Your task to perform on an android device: turn off notifications in google photos Image 0: 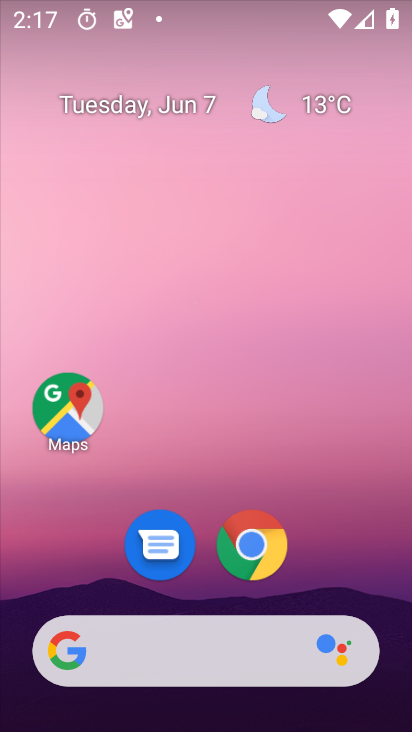
Step 0: drag from (357, 581) to (242, 19)
Your task to perform on an android device: turn off notifications in google photos Image 1: 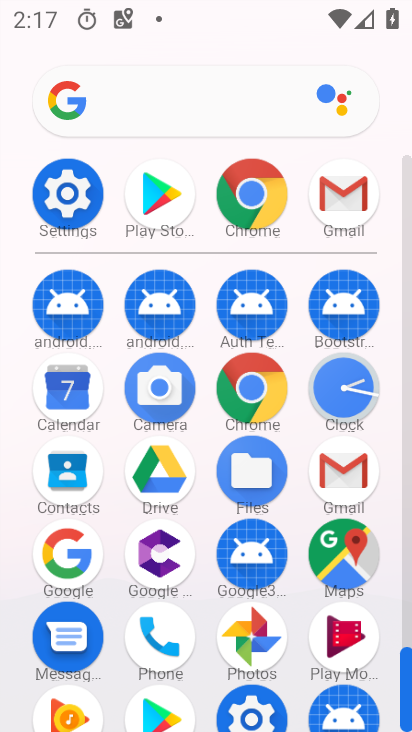
Step 1: click (263, 644)
Your task to perform on an android device: turn off notifications in google photos Image 2: 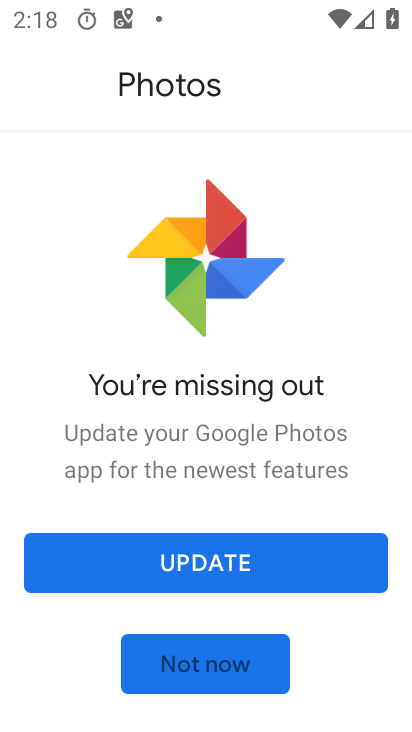
Step 2: click (276, 577)
Your task to perform on an android device: turn off notifications in google photos Image 3: 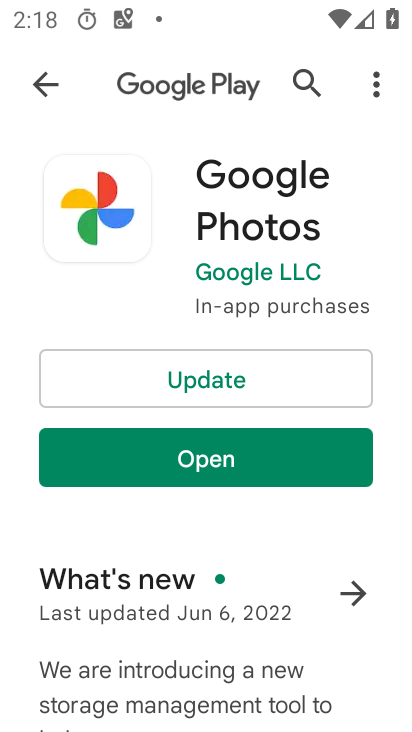
Step 3: click (212, 382)
Your task to perform on an android device: turn off notifications in google photos Image 4: 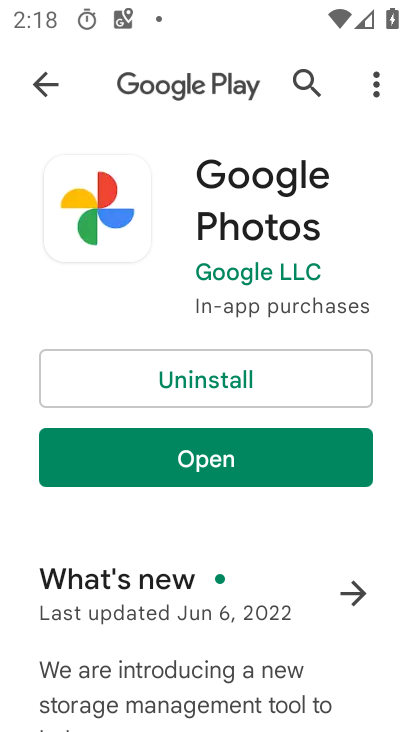
Step 4: click (279, 465)
Your task to perform on an android device: turn off notifications in google photos Image 5: 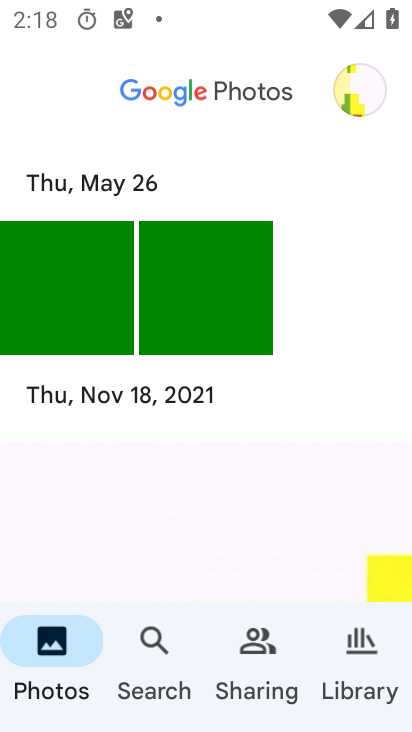
Step 5: click (355, 92)
Your task to perform on an android device: turn off notifications in google photos Image 6: 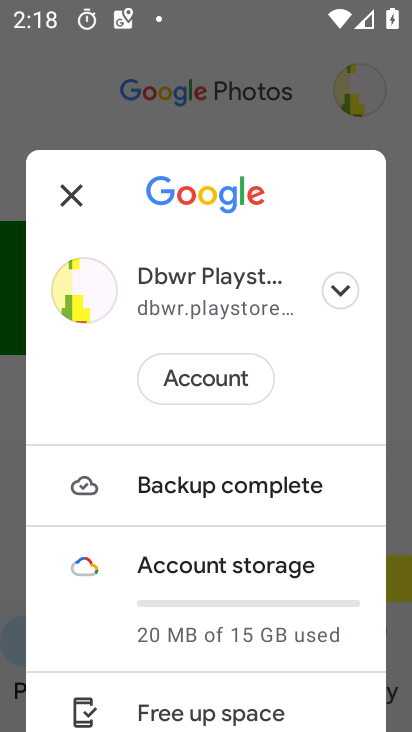
Step 6: drag from (234, 597) to (199, 65)
Your task to perform on an android device: turn off notifications in google photos Image 7: 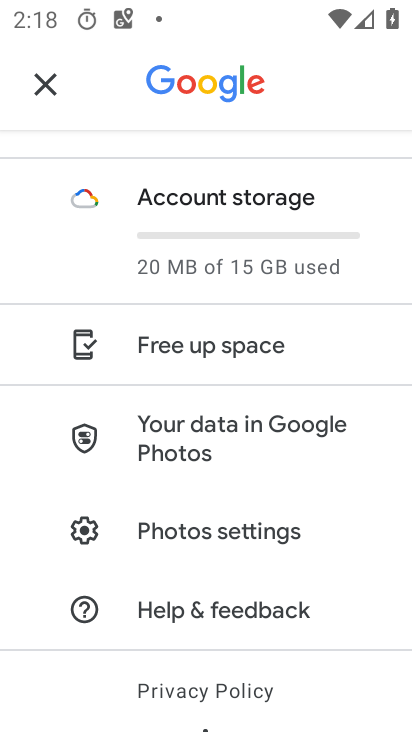
Step 7: click (247, 545)
Your task to perform on an android device: turn off notifications in google photos Image 8: 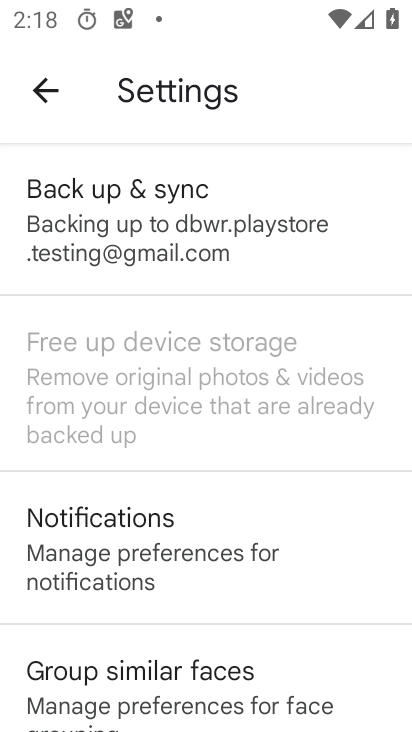
Step 8: click (210, 557)
Your task to perform on an android device: turn off notifications in google photos Image 9: 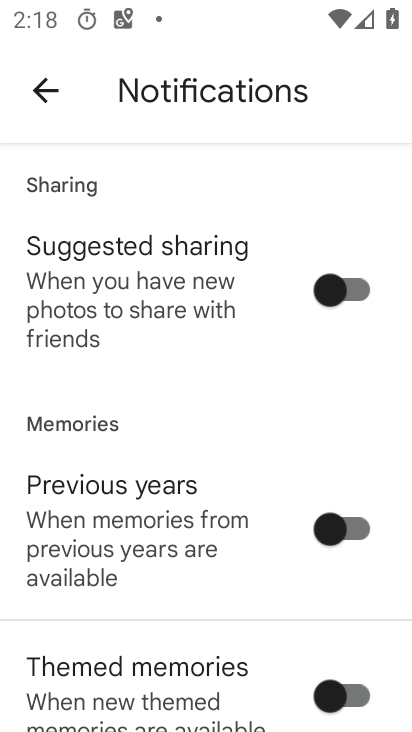
Step 9: task complete